Your task to perform on an android device: Open Google Chrome Image 0: 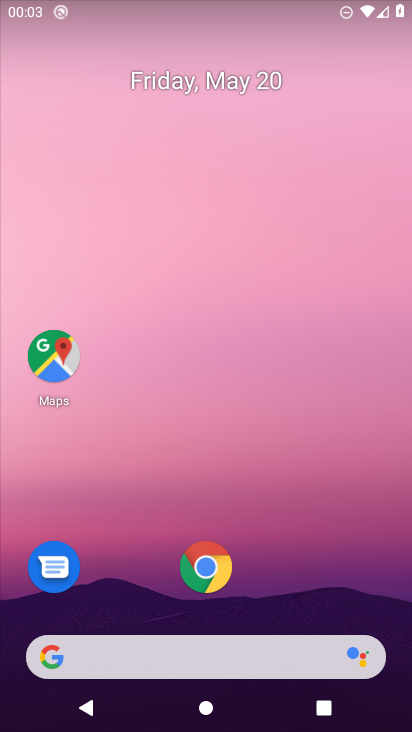
Step 0: click (204, 563)
Your task to perform on an android device: Open Google Chrome Image 1: 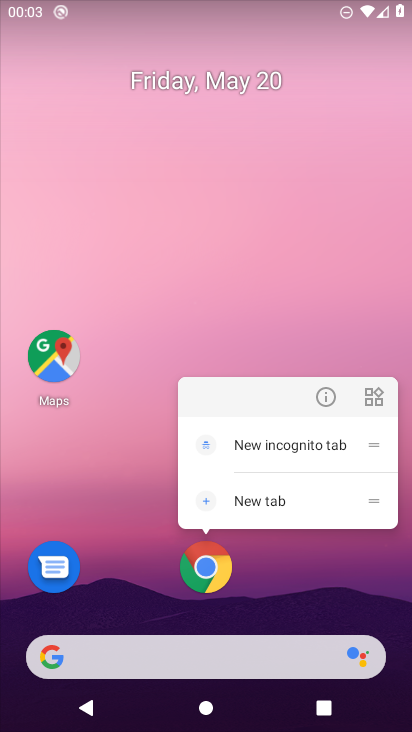
Step 1: click (204, 563)
Your task to perform on an android device: Open Google Chrome Image 2: 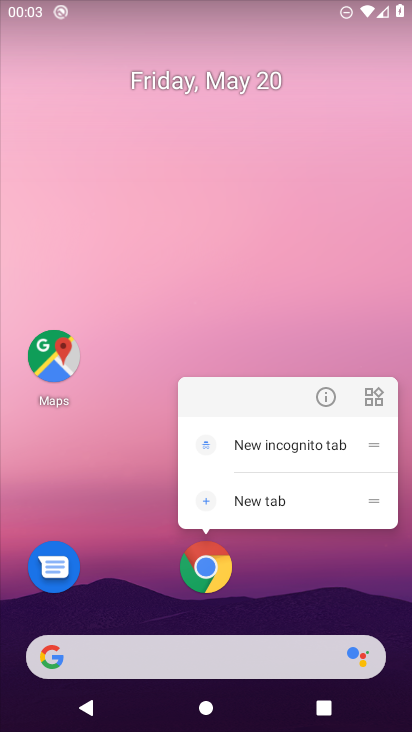
Step 2: click (204, 563)
Your task to perform on an android device: Open Google Chrome Image 3: 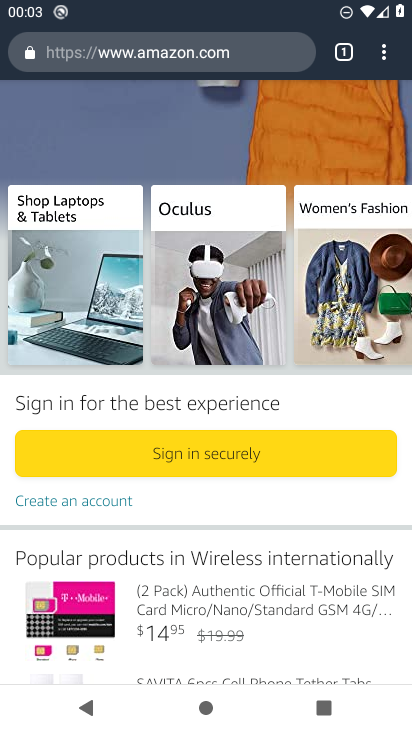
Step 3: click (336, 57)
Your task to perform on an android device: Open Google Chrome Image 4: 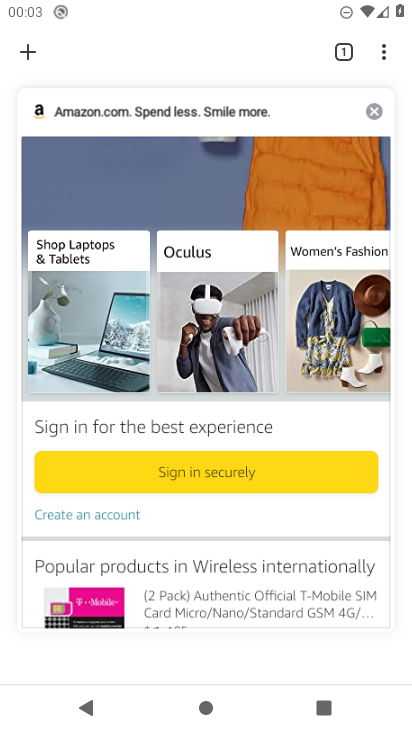
Step 4: click (376, 112)
Your task to perform on an android device: Open Google Chrome Image 5: 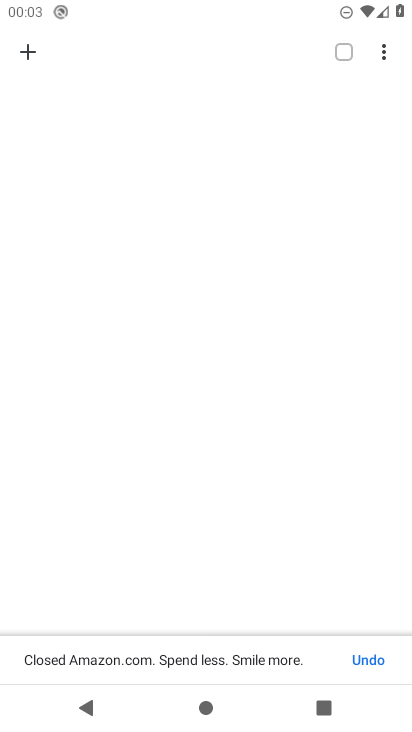
Step 5: click (39, 52)
Your task to perform on an android device: Open Google Chrome Image 6: 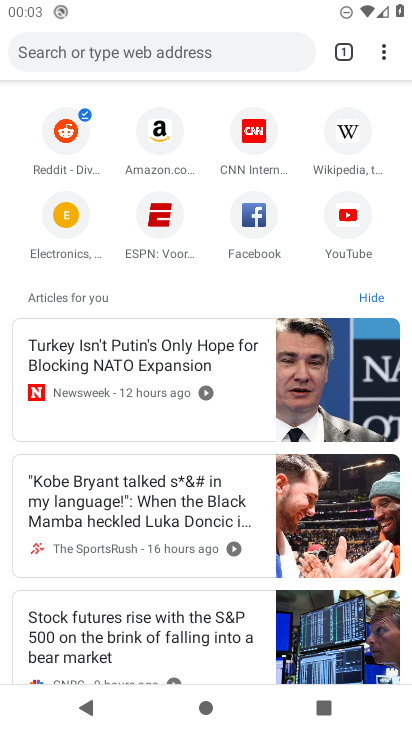
Step 6: task complete